Your task to perform on an android device: Show me popular games on the Play Store Image 0: 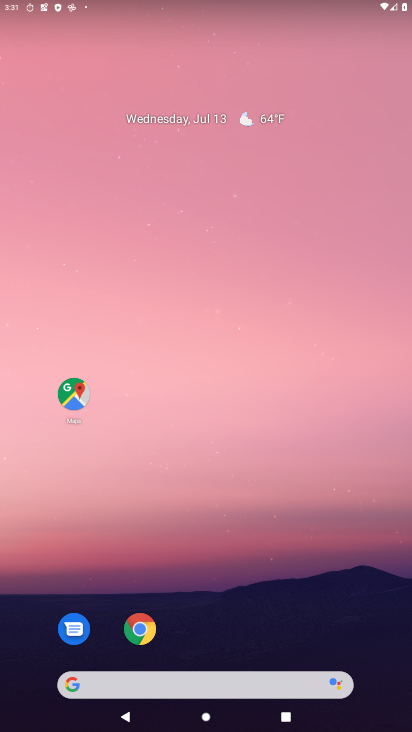
Step 0: drag from (192, 672) to (221, 79)
Your task to perform on an android device: Show me popular games on the Play Store Image 1: 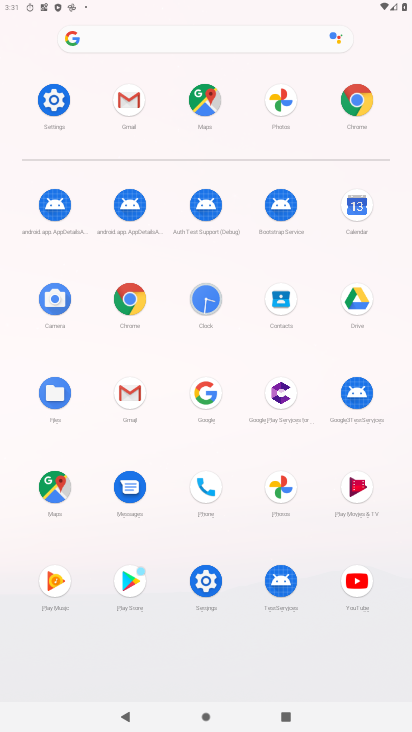
Step 1: click (137, 580)
Your task to perform on an android device: Show me popular games on the Play Store Image 2: 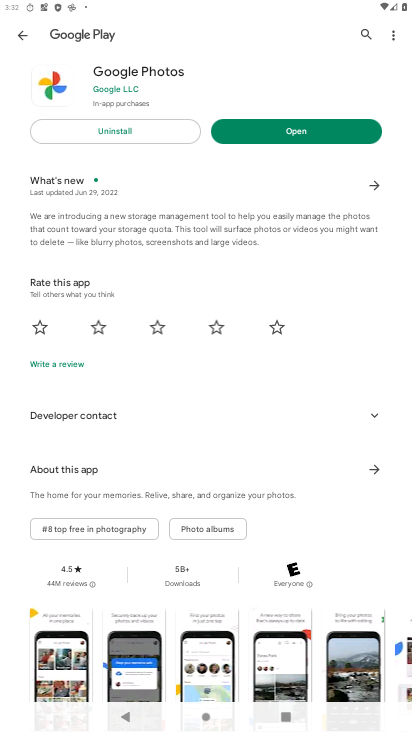
Step 2: press back button
Your task to perform on an android device: Show me popular games on the Play Store Image 3: 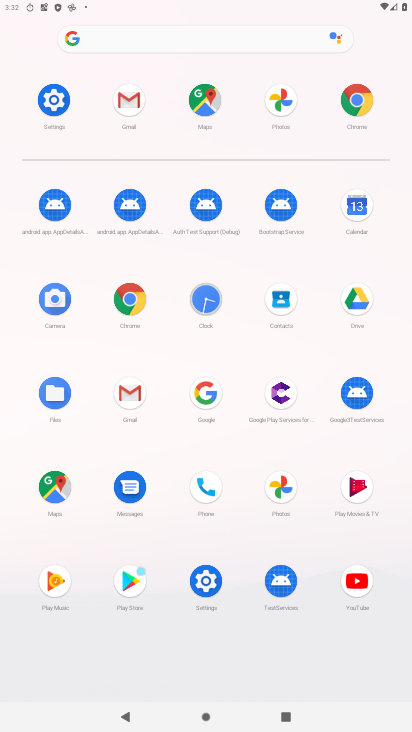
Step 3: click (132, 581)
Your task to perform on an android device: Show me popular games on the Play Store Image 4: 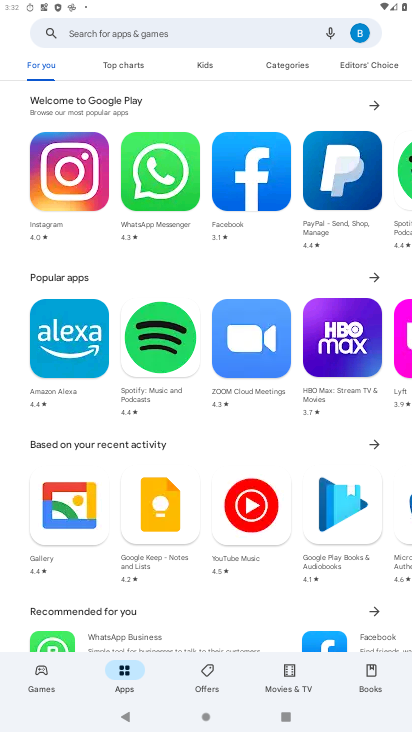
Step 4: click (52, 674)
Your task to perform on an android device: Show me popular games on the Play Store Image 5: 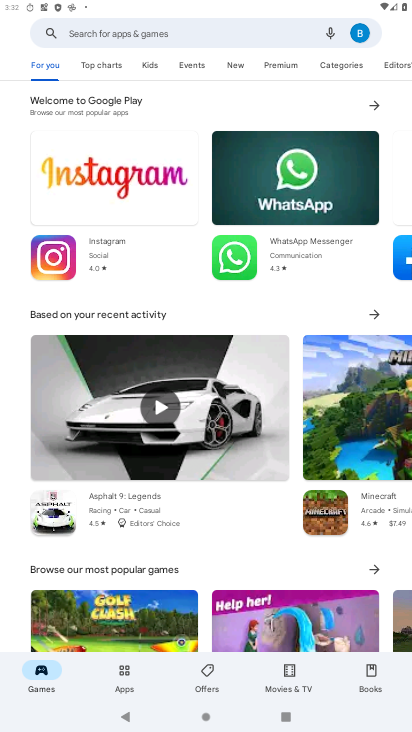
Step 5: drag from (249, 544) to (274, 205)
Your task to perform on an android device: Show me popular games on the Play Store Image 6: 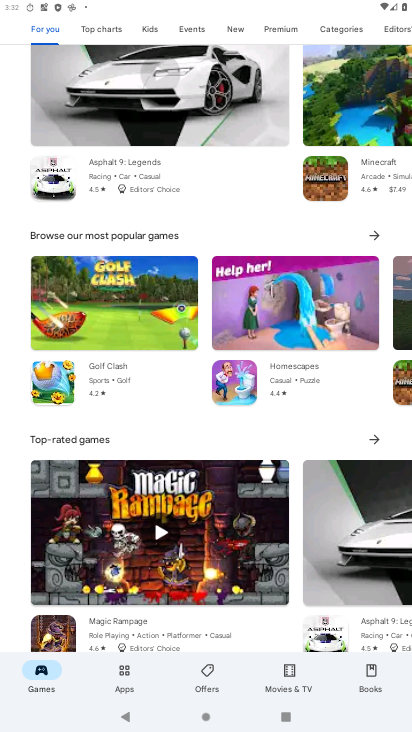
Step 6: click (370, 232)
Your task to perform on an android device: Show me popular games on the Play Store Image 7: 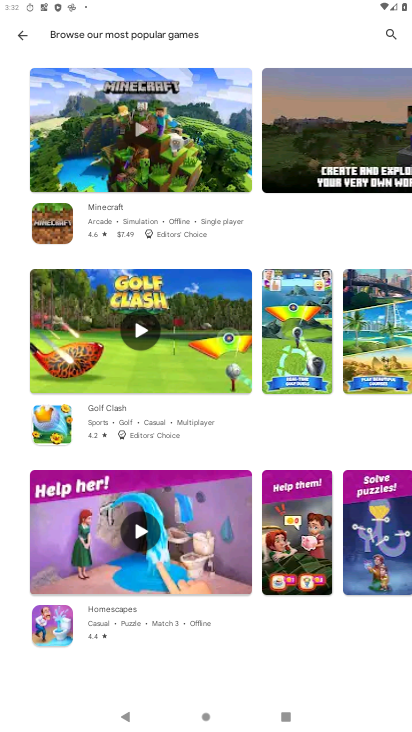
Step 7: task complete